Your task to perform on an android device: check battery use Image 0: 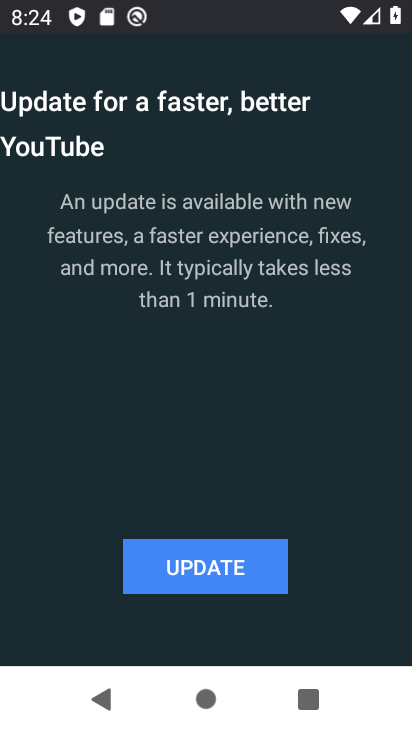
Step 0: press home button
Your task to perform on an android device: check battery use Image 1: 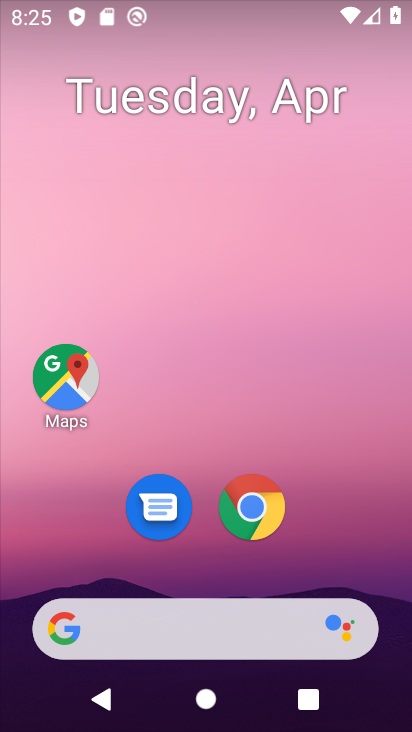
Step 1: drag from (218, 529) to (254, 224)
Your task to perform on an android device: check battery use Image 2: 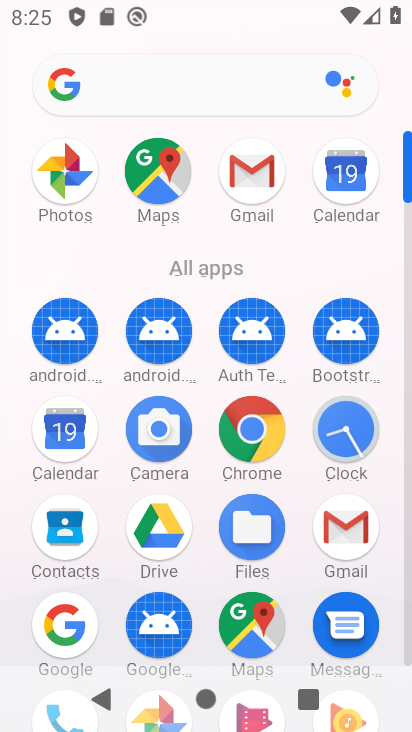
Step 2: drag from (196, 488) to (203, 214)
Your task to perform on an android device: check battery use Image 3: 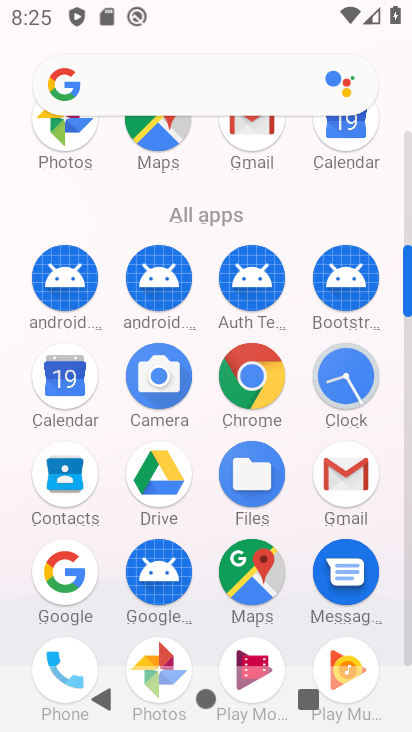
Step 3: drag from (188, 532) to (201, 247)
Your task to perform on an android device: check battery use Image 4: 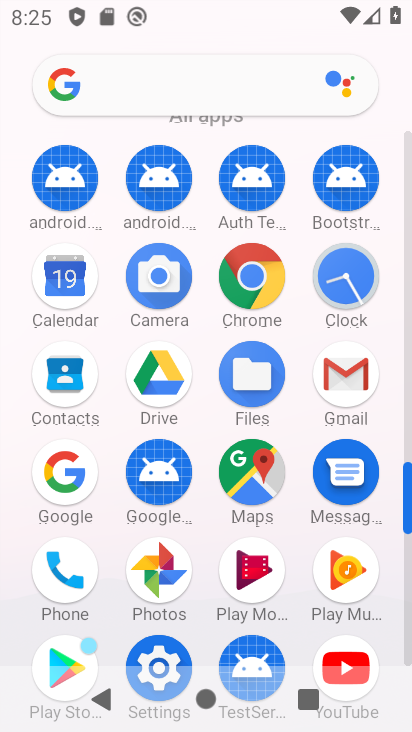
Step 4: click (158, 646)
Your task to perform on an android device: check battery use Image 5: 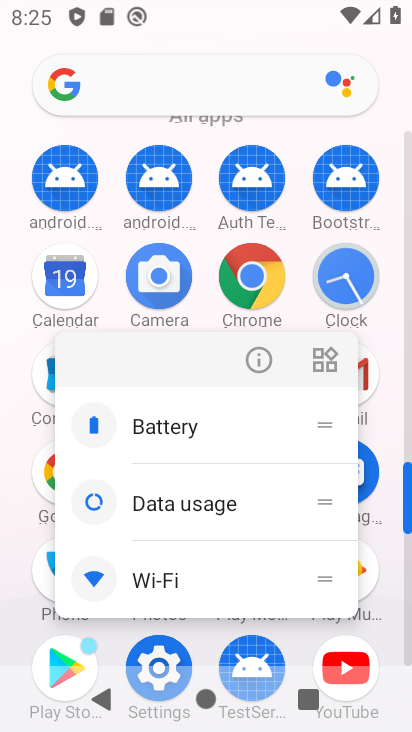
Step 5: click (154, 646)
Your task to perform on an android device: check battery use Image 6: 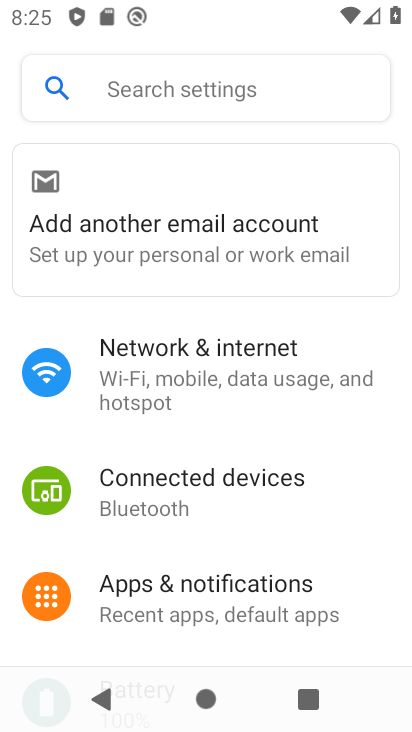
Step 6: drag from (192, 265) to (192, 208)
Your task to perform on an android device: check battery use Image 7: 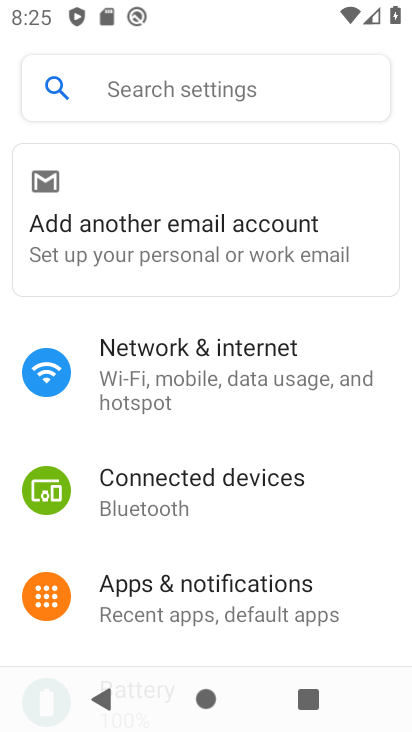
Step 7: drag from (236, 519) to (243, 305)
Your task to perform on an android device: check battery use Image 8: 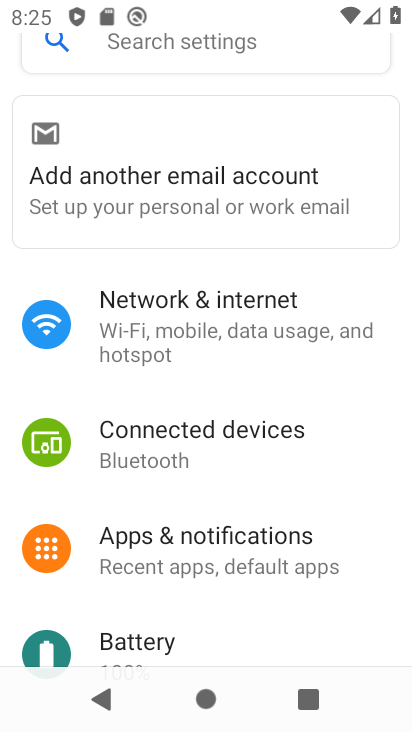
Step 8: drag from (189, 522) to (214, 311)
Your task to perform on an android device: check battery use Image 9: 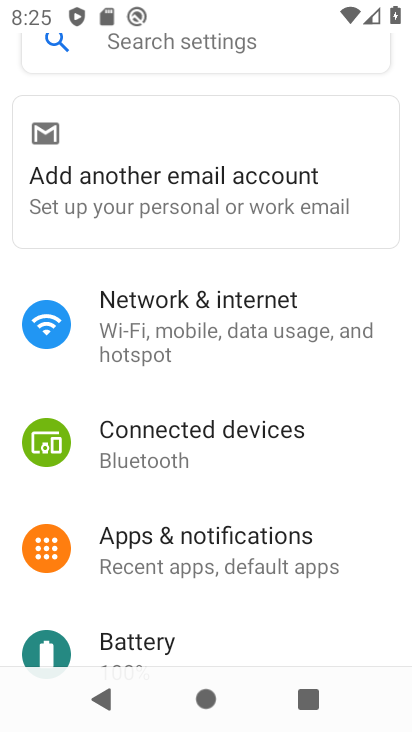
Step 9: click (155, 642)
Your task to perform on an android device: check battery use Image 10: 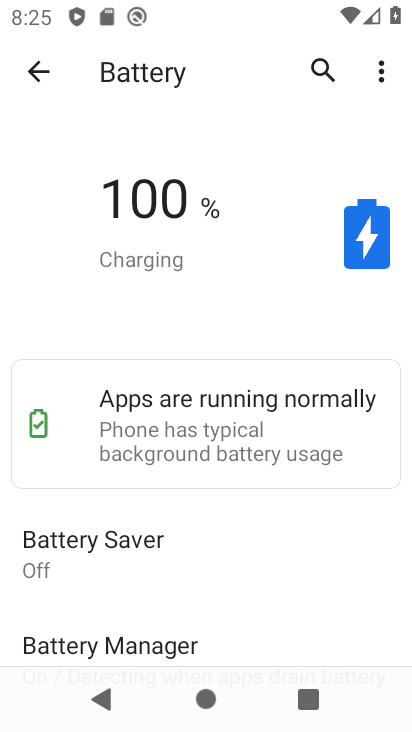
Step 10: click (388, 71)
Your task to perform on an android device: check battery use Image 11: 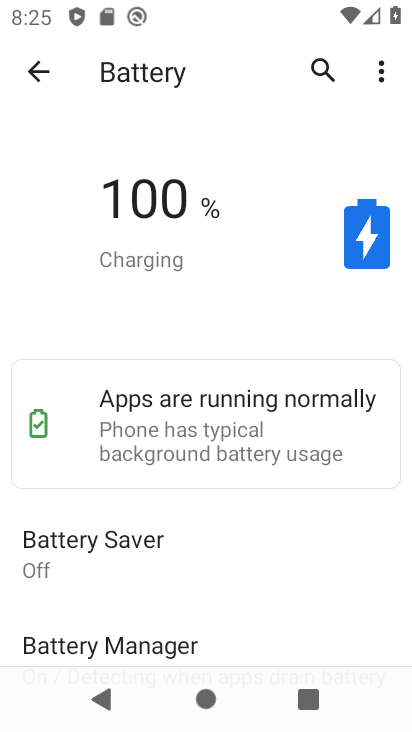
Step 11: drag from (277, 626) to (260, 413)
Your task to perform on an android device: check battery use Image 12: 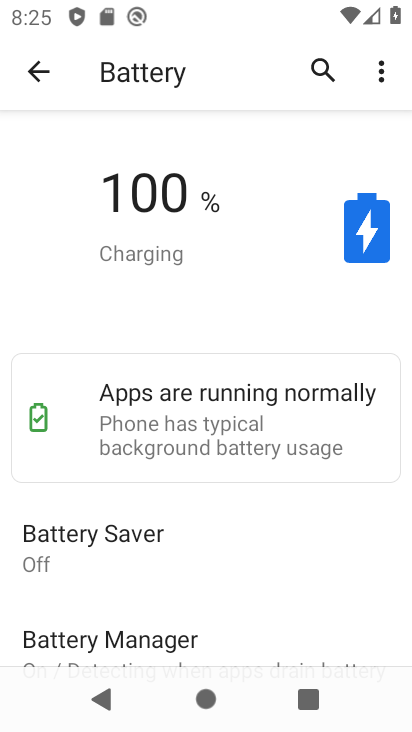
Step 12: click (375, 66)
Your task to perform on an android device: check battery use Image 13: 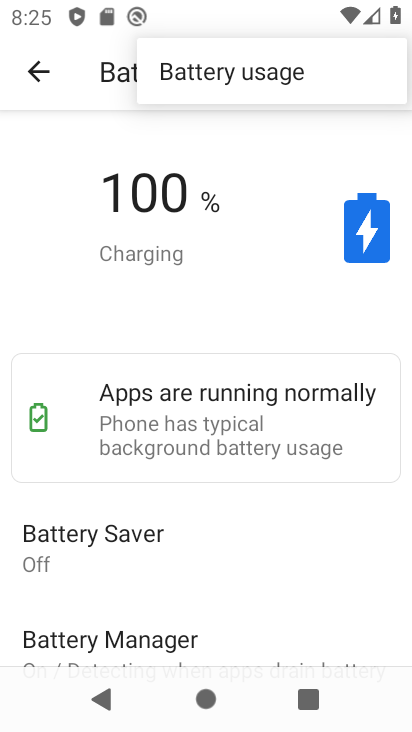
Step 13: click (326, 68)
Your task to perform on an android device: check battery use Image 14: 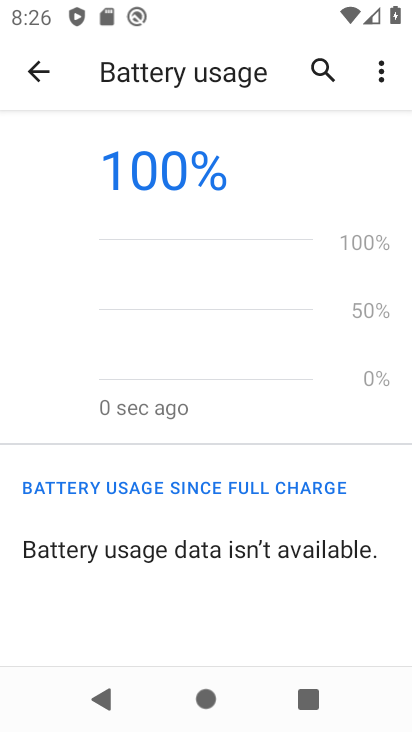
Step 14: task complete